Your task to perform on an android device: change your default location settings in chrome Image 0: 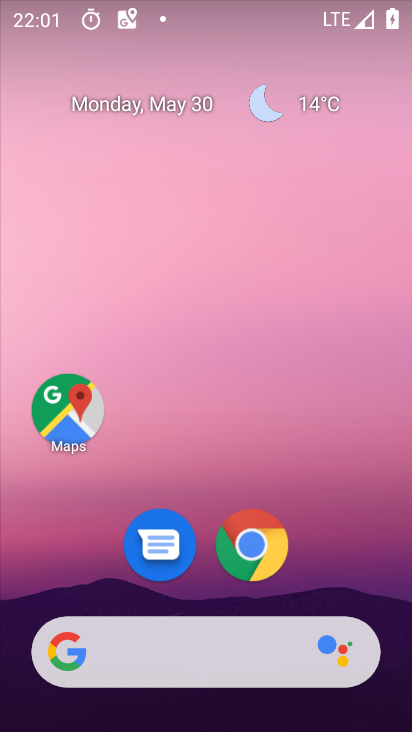
Step 0: click (269, 552)
Your task to perform on an android device: change your default location settings in chrome Image 1: 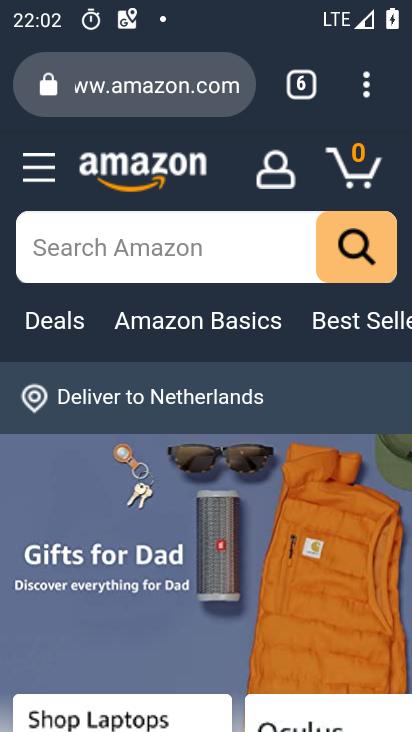
Step 1: click (368, 85)
Your task to perform on an android device: change your default location settings in chrome Image 2: 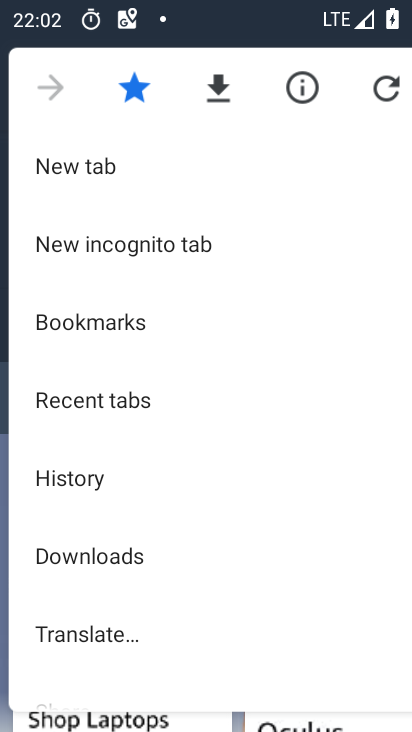
Step 2: drag from (161, 631) to (219, 184)
Your task to perform on an android device: change your default location settings in chrome Image 3: 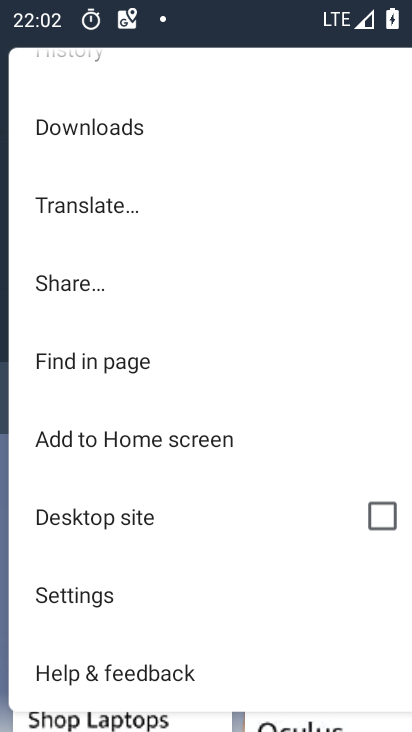
Step 3: click (92, 596)
Your task to perform on an android device: change your default location settings in chrome Image 4: 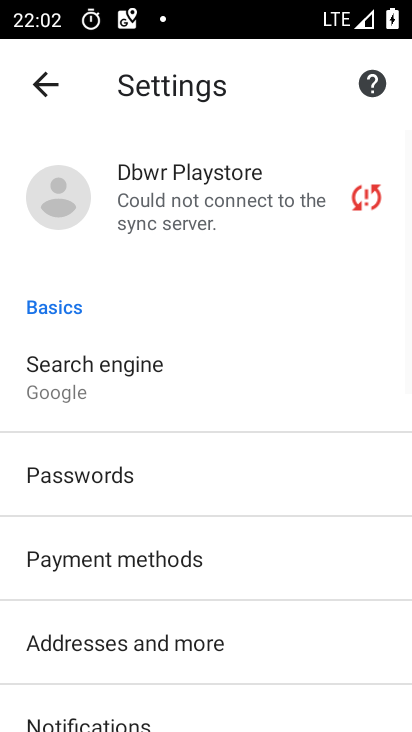
Step 4: drag from (258, 597) to (259, 404)
Your task to perform on an android device: change your default location settings in chrome Image 5: 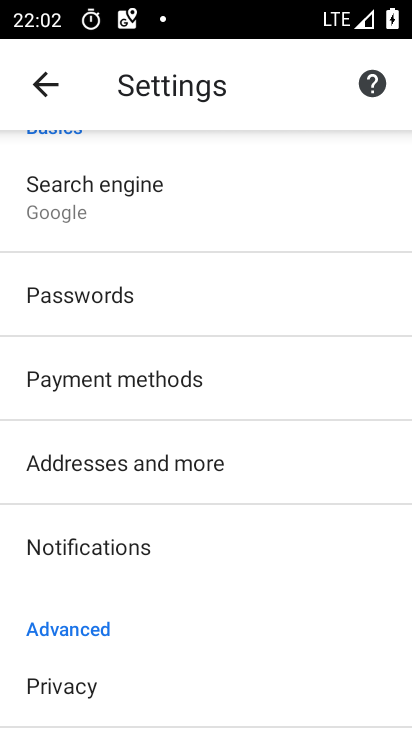
Step 5: drag from (214, 641) to (220, 393)
Your task to perform on an android device: change your default location settings in chrome Image 6: 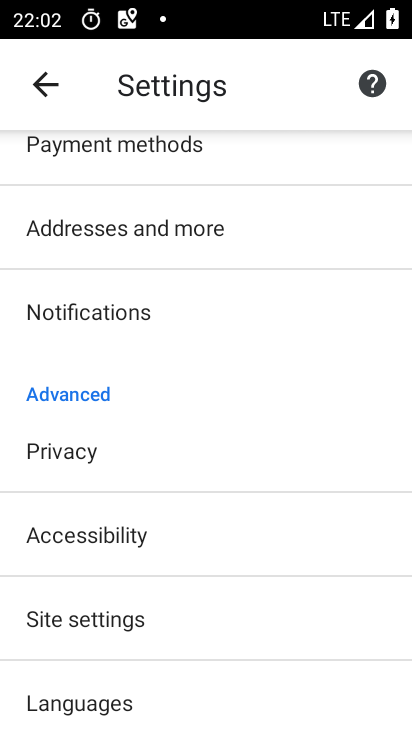
Step 6: click (147, 621)
Your task to perform on an android device: change your default location settings in chrome Image 7: 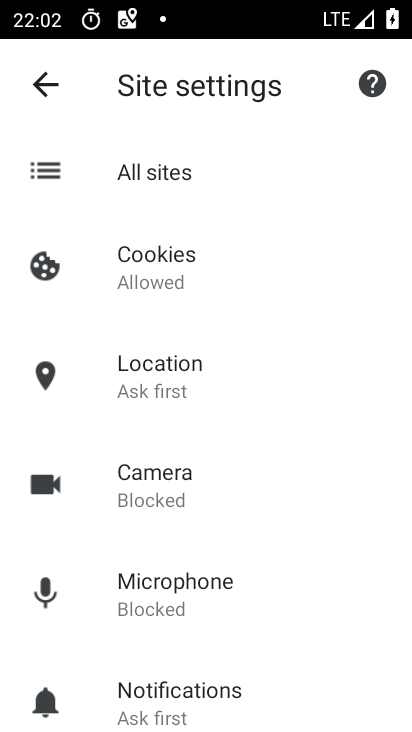
Step 7: click (154, 374)
Your task to perform on an android device: change your default location settings in chrome Image 8: 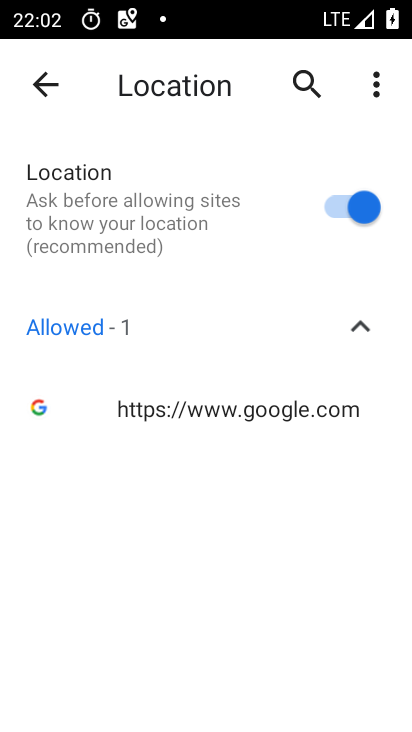
Step 8: click (340, 209)
Your task to perform on an android device: change your default location settings in chrome Image 9: 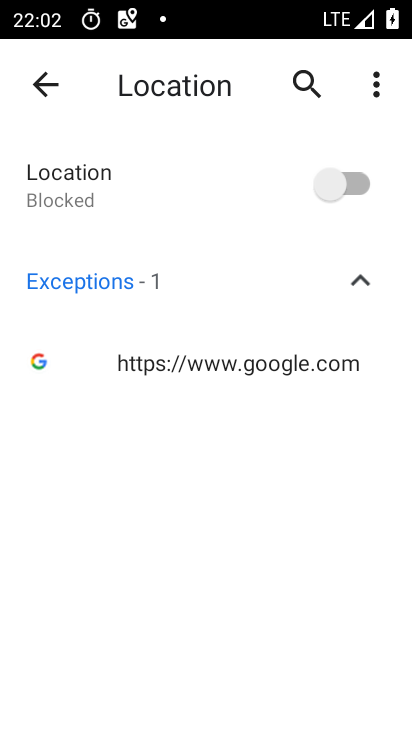
Step 9: task complete